Your task to perform on an android device: Open Android settings Image 0: 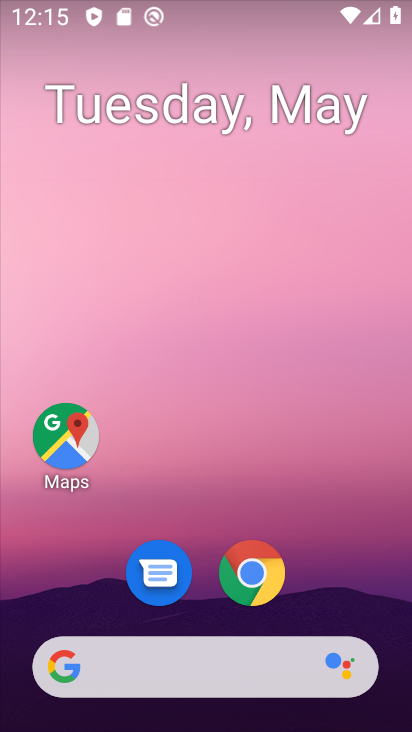
Step 0: drag from (352, 630) to (244, 98)
Your task to perform on an android device: Open Android settings Image 1: 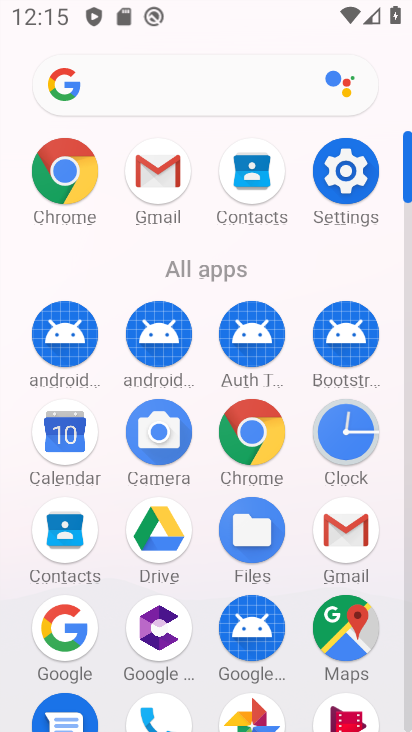
Step 1: click (320, 167)
Your task to perform on an android device: Open Android settings Image 2: 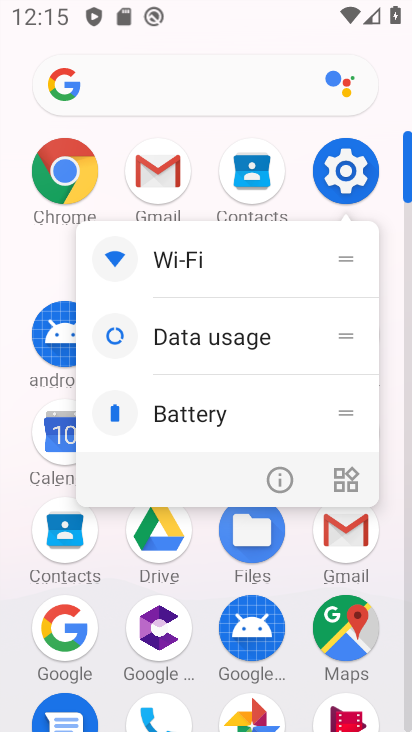
Step 2: click (340, 171)
Your task to perform on an android device: Open Android settings Image 3: 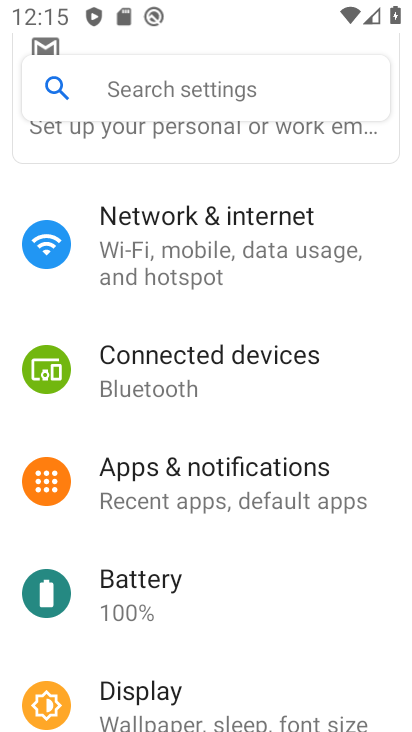
Step 3: drag from (242, 542) to (254, 197)
Your task to perform on an android device: Open Android settings Image 4: 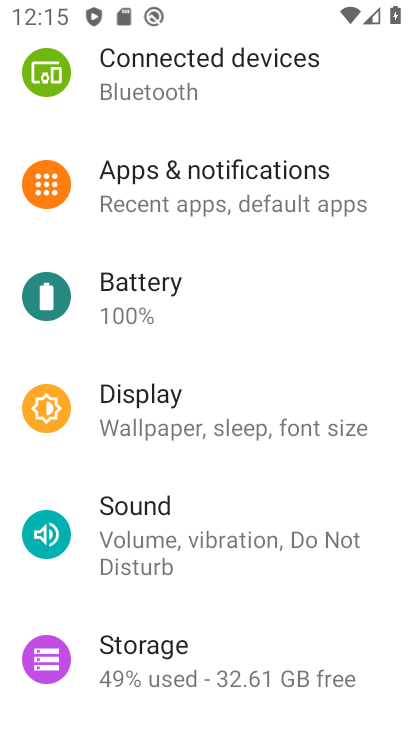
Step 4: drag from (195, 535) to (240, 102)
Your task to perform on an android device: Open Android settings Image 5: 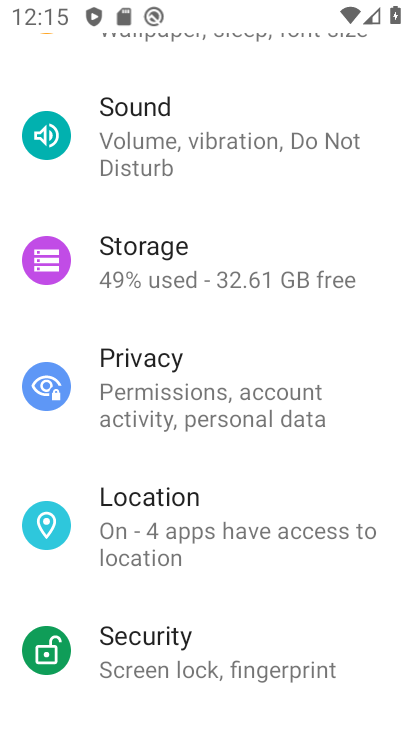
Step 5: drag from (243, 605) to (289, 147)
Your task to perform on an android device: Open Android settings Image 6: 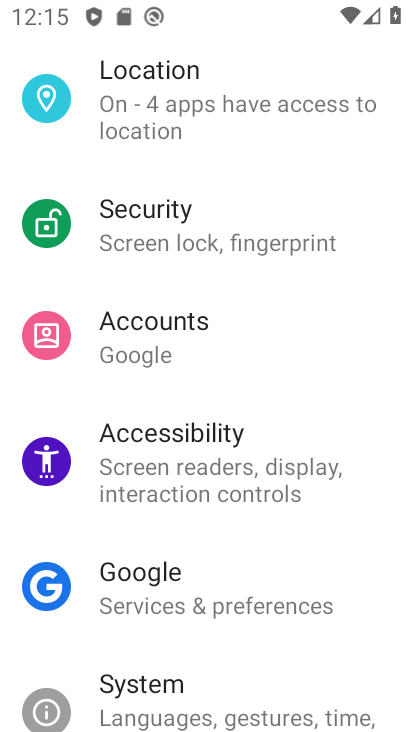
Step 6: drag from (269, 573) to (273, 82)
Your task to perform on an android device: Open Android settings Image 7: 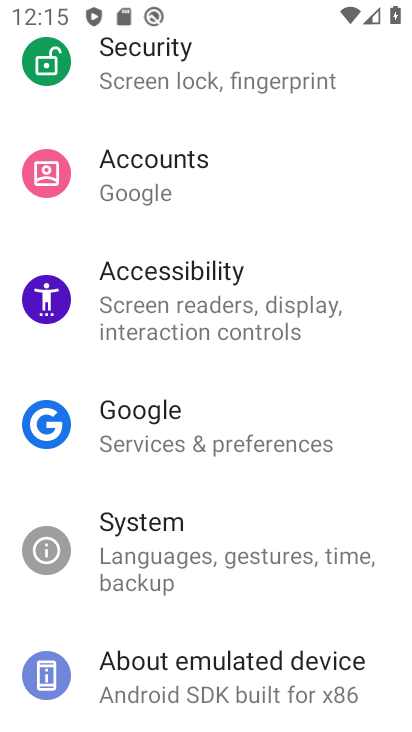
Step 7: drag from (198, 565) to (209, 274)
Your task to perform on an android device: Open Android settings Image 8: 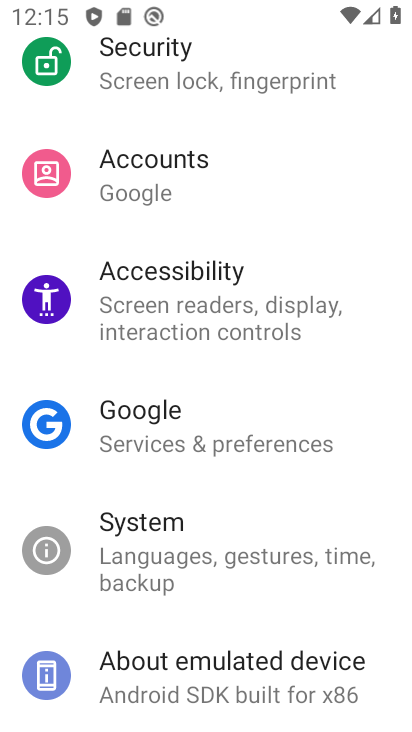
Step 8: click (184, 683)
Your task to perform on an android device: Open Android settings Image 9: 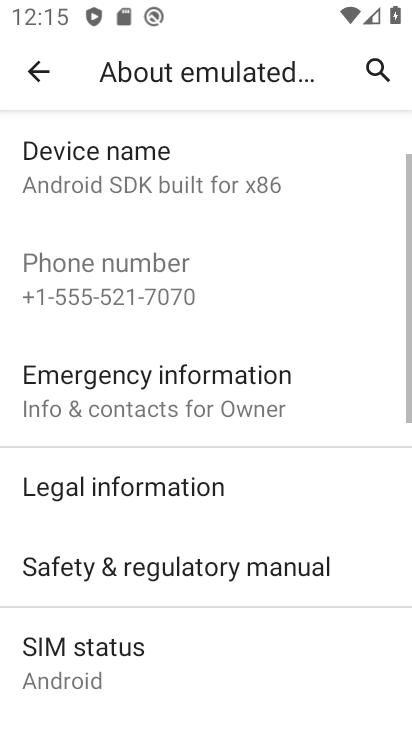
Step 9: drag from (183, 694) to (213, 338)
Your task to perform on an android device: Open Android settings Image 10: 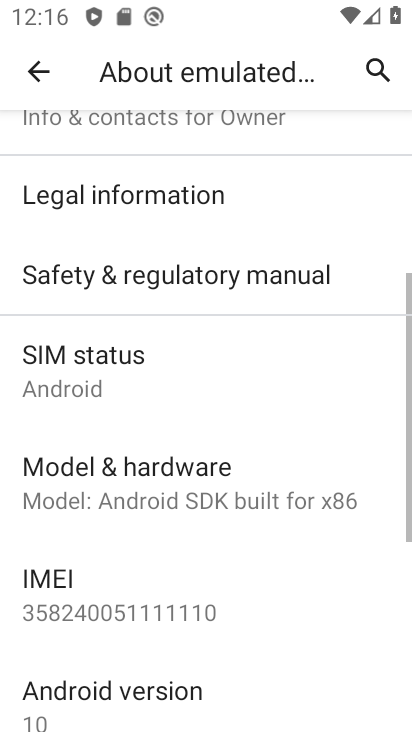
Step 10: drag from (173, 656) to (89, 209)
Your task to perform on an android device: Open Android settings Image 11: 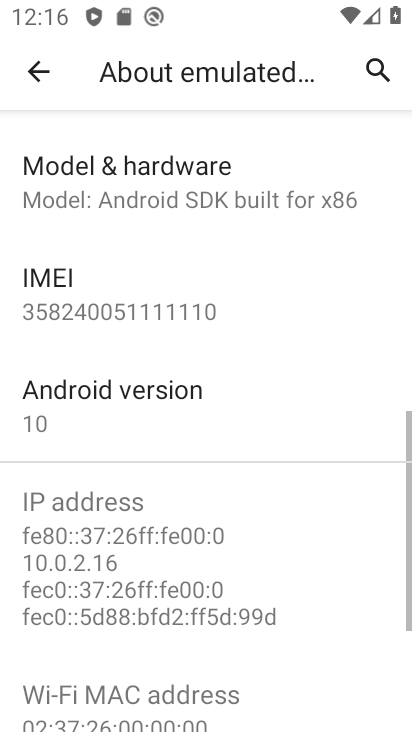
Step 11: click (91, 389)
Your task to perform on an android device: Open Android settings Image 12: 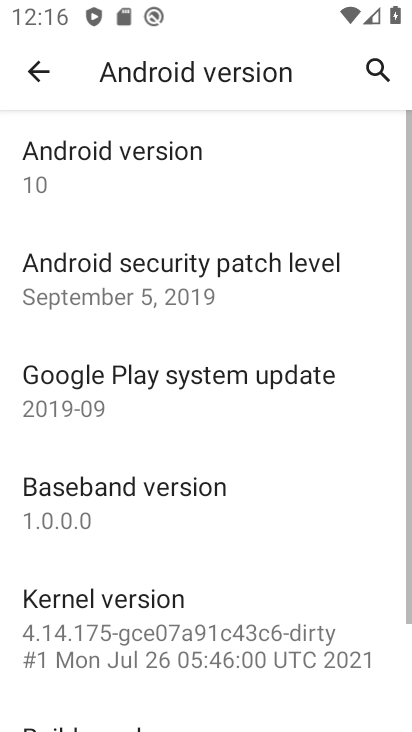
Step 12: task complete